Your task to perform on an android device: uninstall "Adobe Acrobat Reader" Image 0: 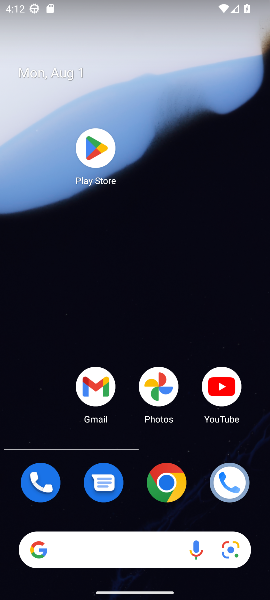
Step 0: press home button
Your task to perform on an android device: uninstall "Adobe Acrobat Reader" Image 1: 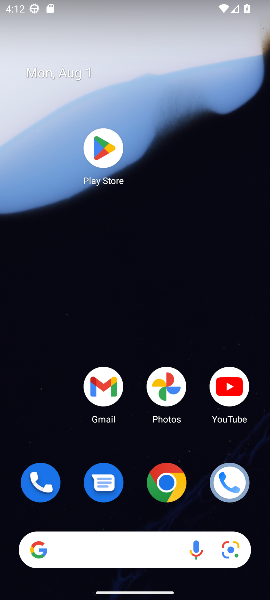
Step 1: click (107, 151)
Your task to perform on an android device: uninstall "Adobe Acrobat Reader" Image 2: 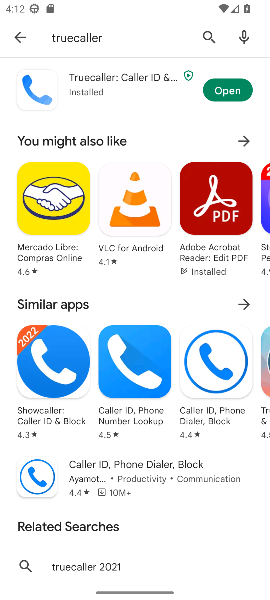
Step 2: click (203, 35)
Your task to perform on an android device: uninstall "Adobe Acrobat Reader" Image 3: 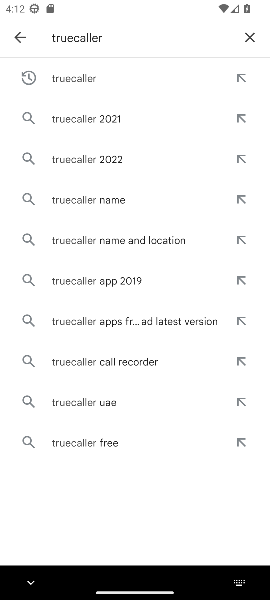
Step 3: click (252, 35)
Your task to perform on an android device: uninstall "Adobe Acrobat Reader" Image 4: 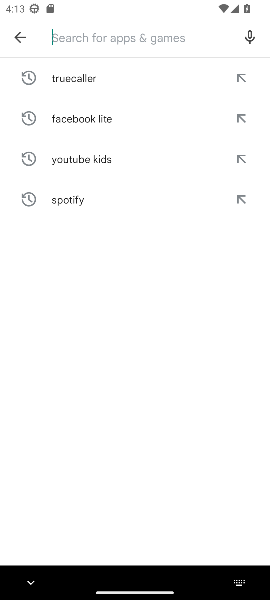
Step 4: type "Adobe Acrobat Reader"
Your task to perform on an android device: uninstall "Adobe Acrobat Reader" Image 5: 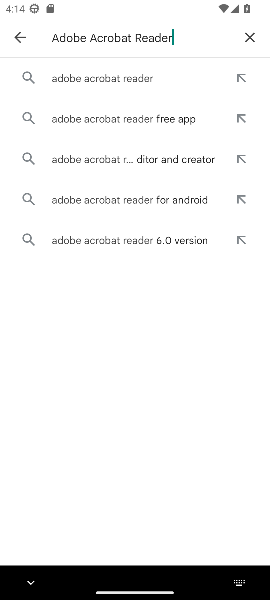
Step 5: click (140, 75)
Your task to perform on an android device: uninstall "Adobe Acrobat Reader" Image 6: 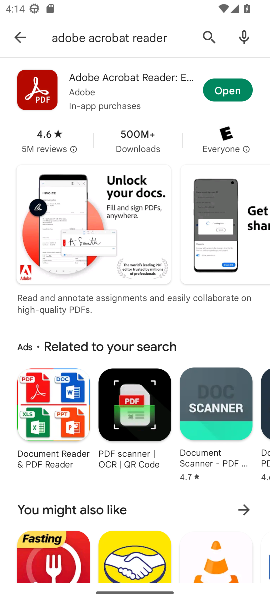
Step 6: click (37, 91)
Your task to perform on an android device: uninstall "Adobe Acrobat Reader" Image 7: 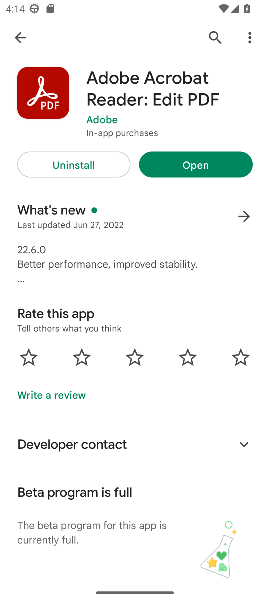
Step 7: click (82, 164)
Your task to perform on an android device: uninstall "Adobe Acrobat Reader" Image 8: 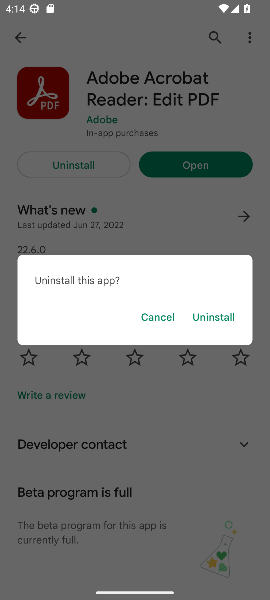
Step 8: click (205, 316)
Your task to perform on an android device: uninstall "Adobe Acrobat Reader" Image 9: 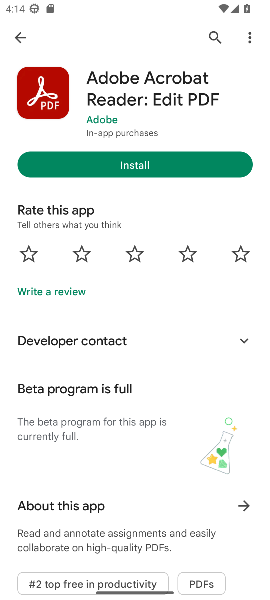
Step 9: task complete